Your task to perform on an android device: turn off notifications in google photos Image 0: 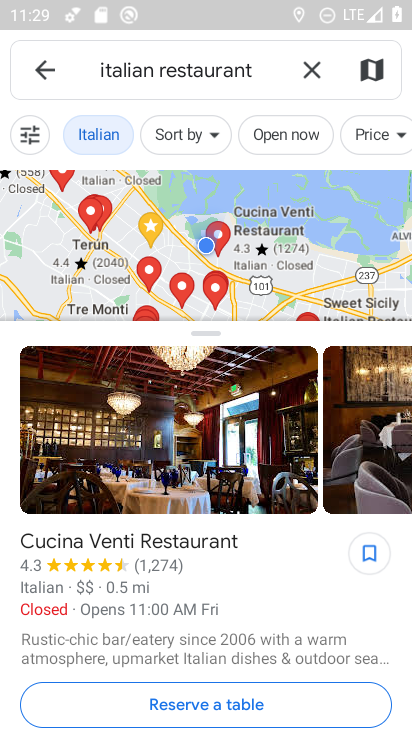
Step 0: press home button
Your task to perform on an android device: turn off notifications in google photos Image 1: 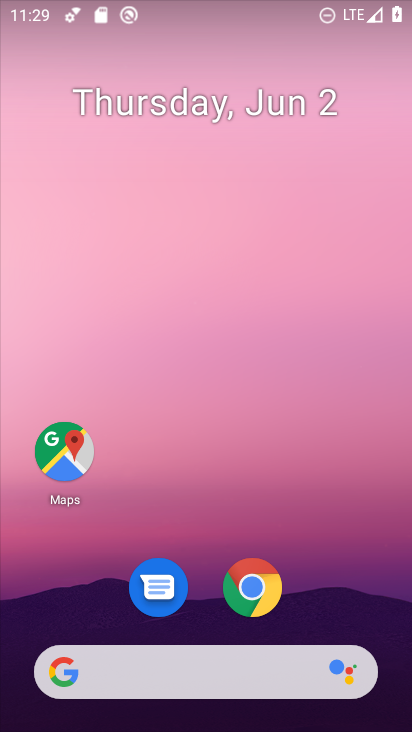
Step 1: drag from (350, 602) to (196, 114)
Your task to perform on an android device: turn off notifications in google photos Image 2: 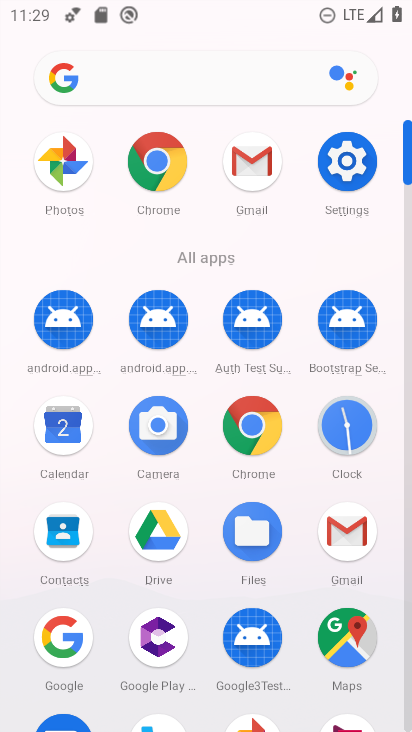
Step 2: click (69, 184)
Your task to perform on an android device: turn off notifications in google photos Image 3: 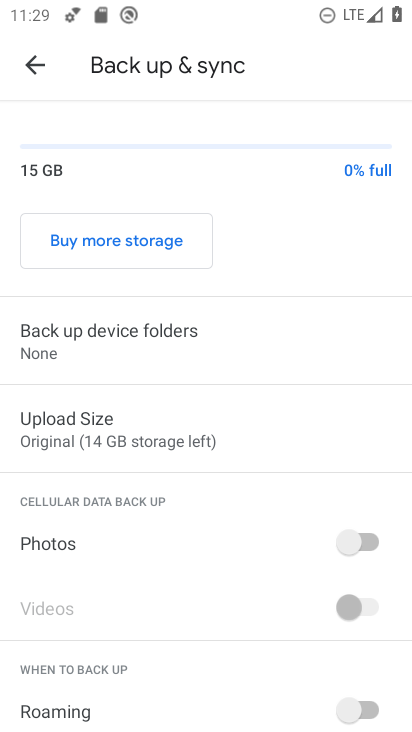
Step 3: click (29, 76)
Your task to perform on an android device: turn off notifications in google photos Image 4: 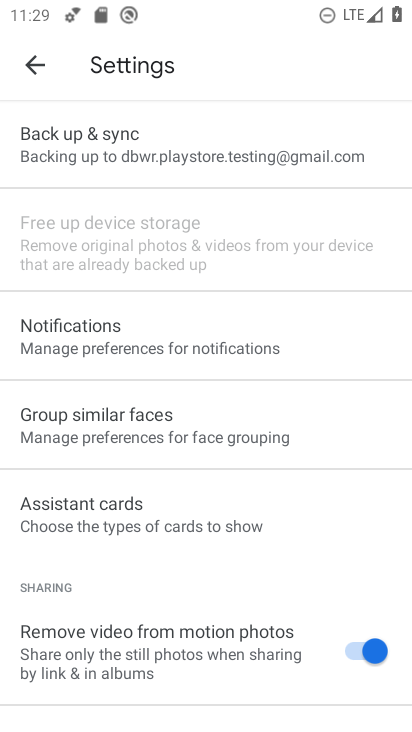
Step 4: click (121, 322)
Your task to perform on an android device: turn off notifications in google photos Image 5: 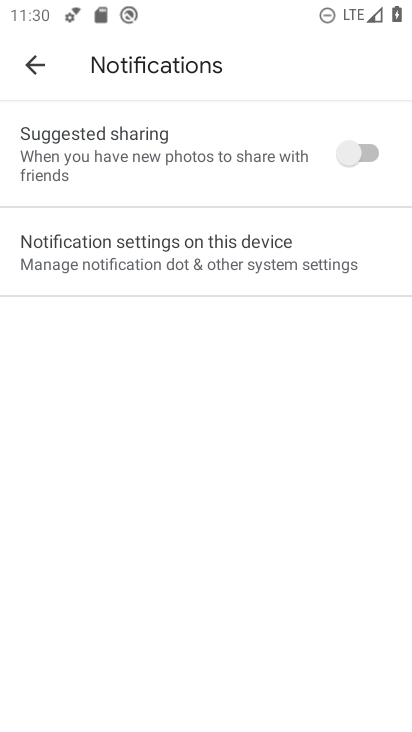
Step 5: click (177, 250)
Your task to perform on an android device: turn off notifications in google photos Image 6: 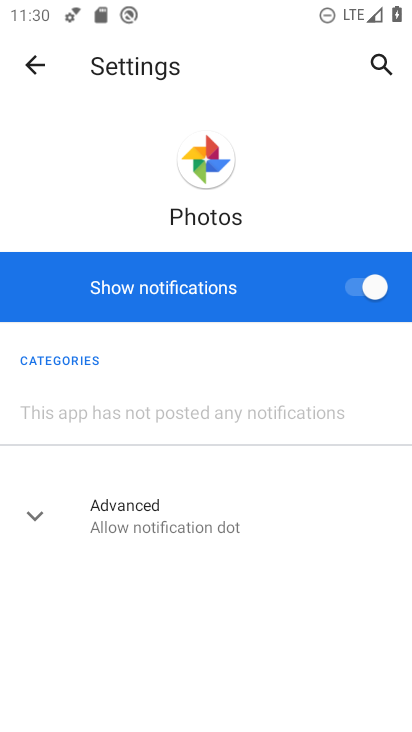
Step 6: click (354, 289)
Your task to perform on an android device: turn off notifications in google photos Image 7: 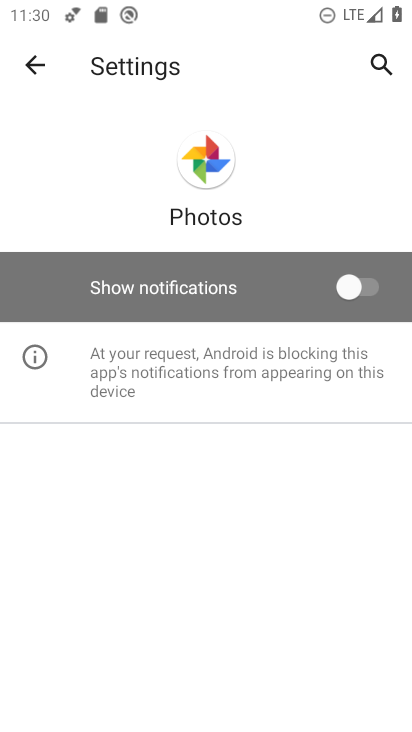
Step 7: task complete